Your task to perform on an android device: turn notification dots off Image 0: 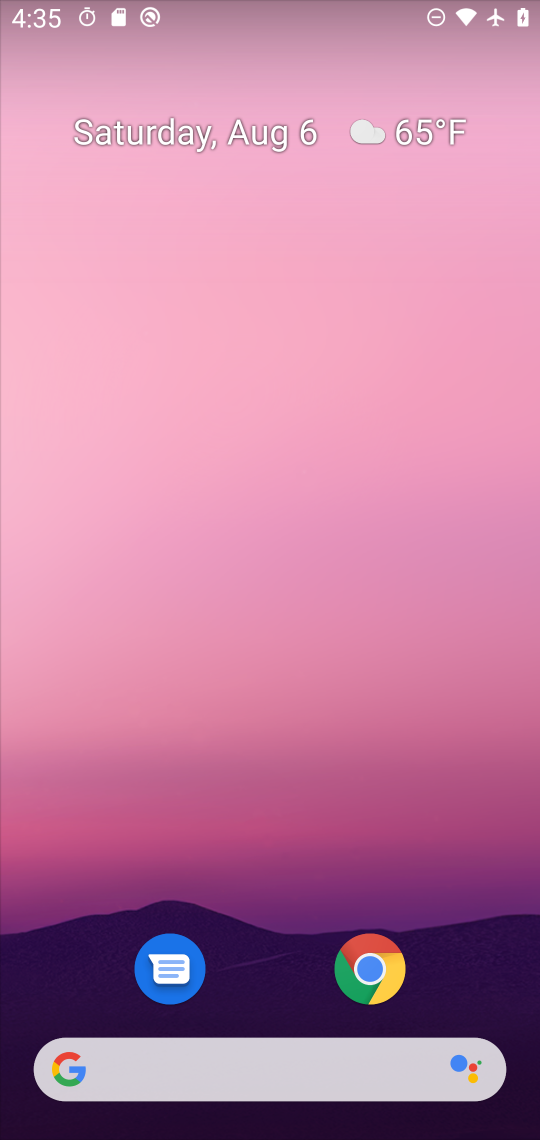
Step 0: press home button
Your task to perform on an android device: turn notification dots off Image 1: 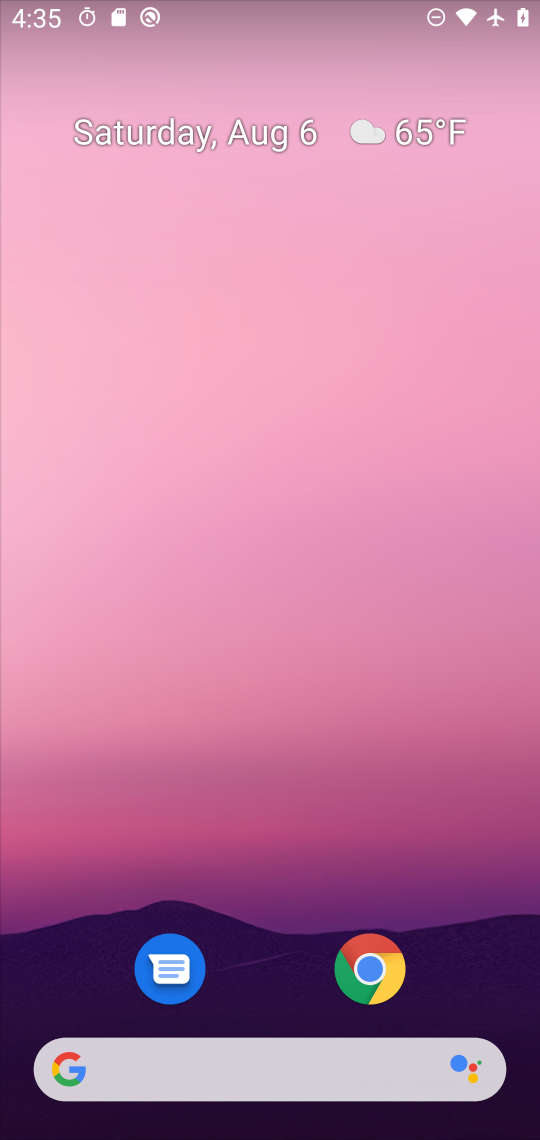
Step 1: drag from (298, 973) to (252, 234)
Your task to perform on an android device: turn notification dots off Image 2: 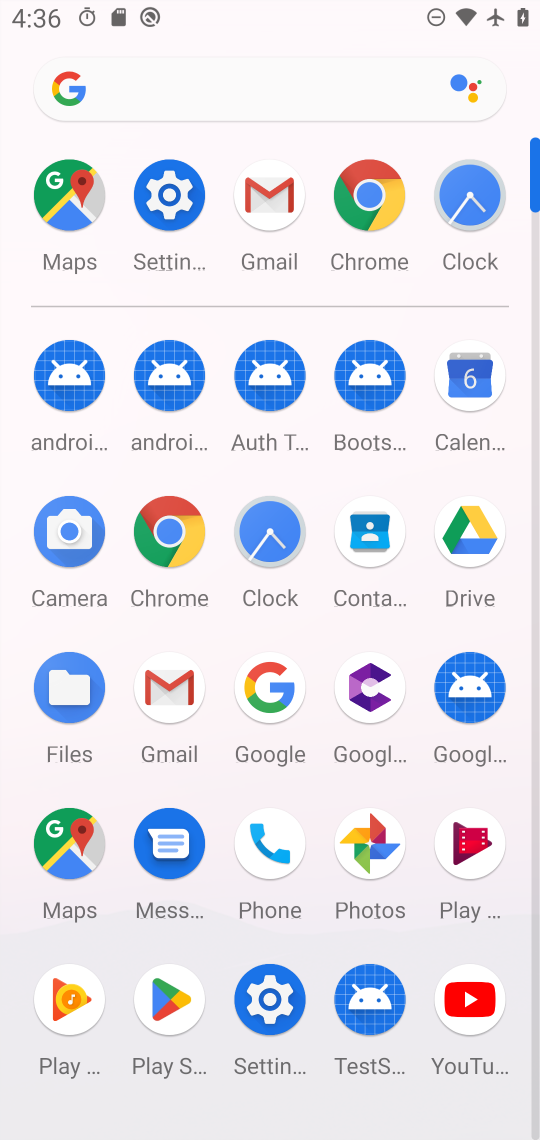
Step 2: press home button
Your task to perform on an android device: turn notification dots off Image 3: 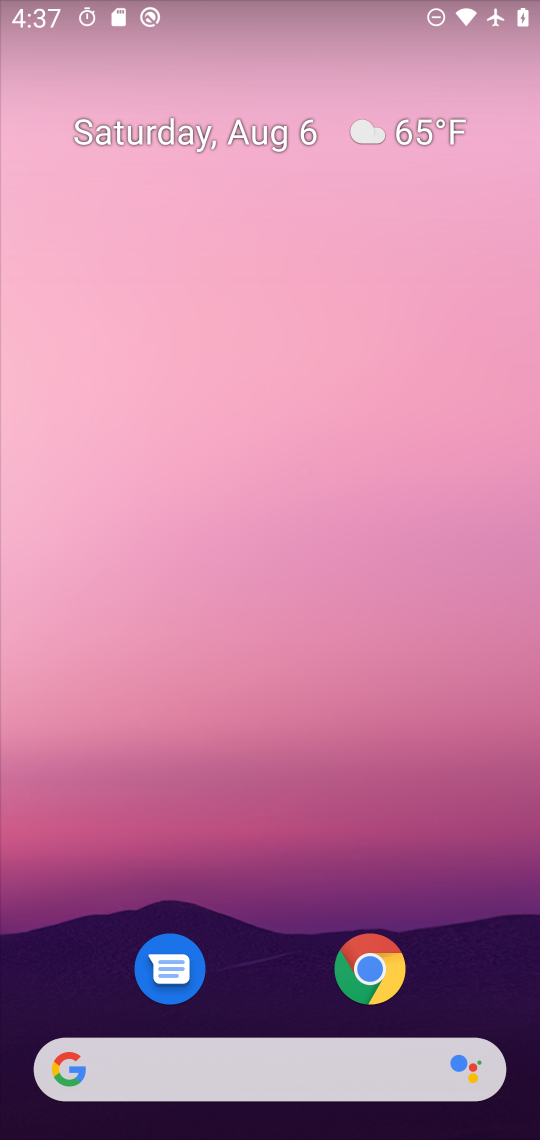
Step 3: drag from (257, 1001) to (201, 169)
Your task to perform on an android device: turn notification dots off Image 4: 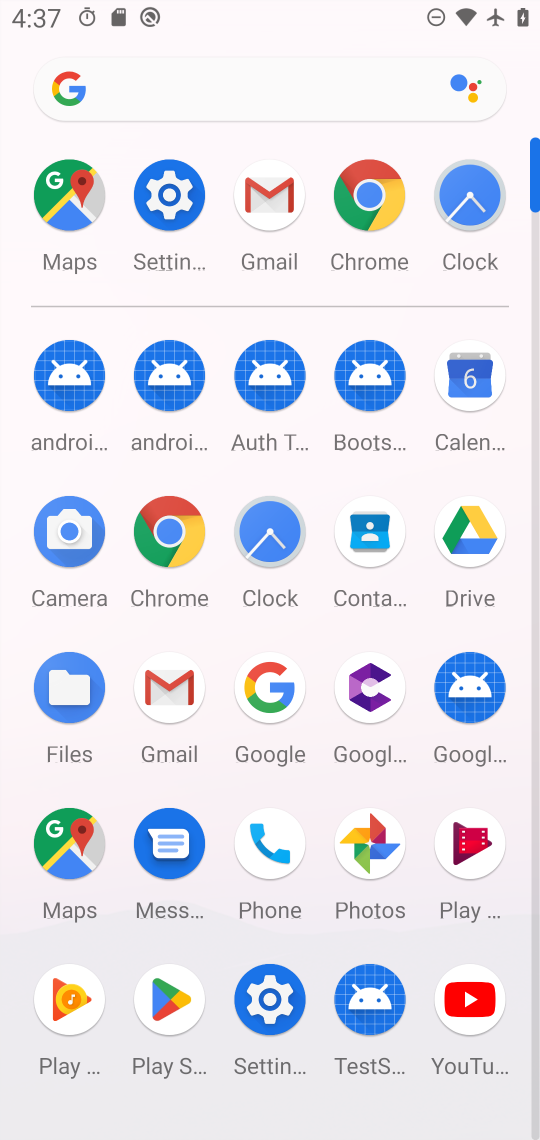
Step 4: click (177, 191)
Your task to perform on an android device: turn notification dots off Image 5: 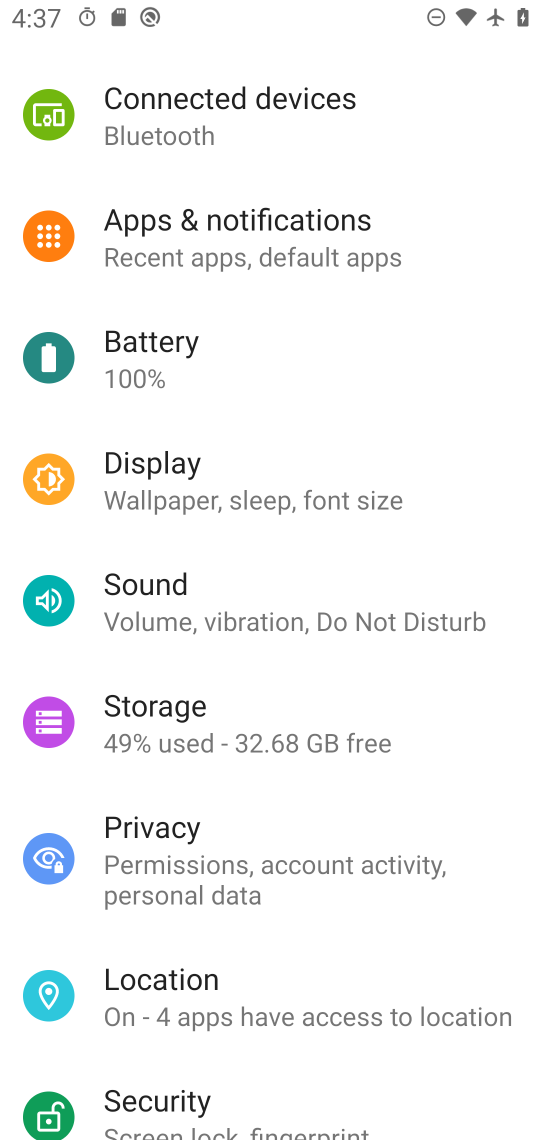
Step 5: click (218, 239)
Your task to perform on an android device: turn notification dots off Image 6: 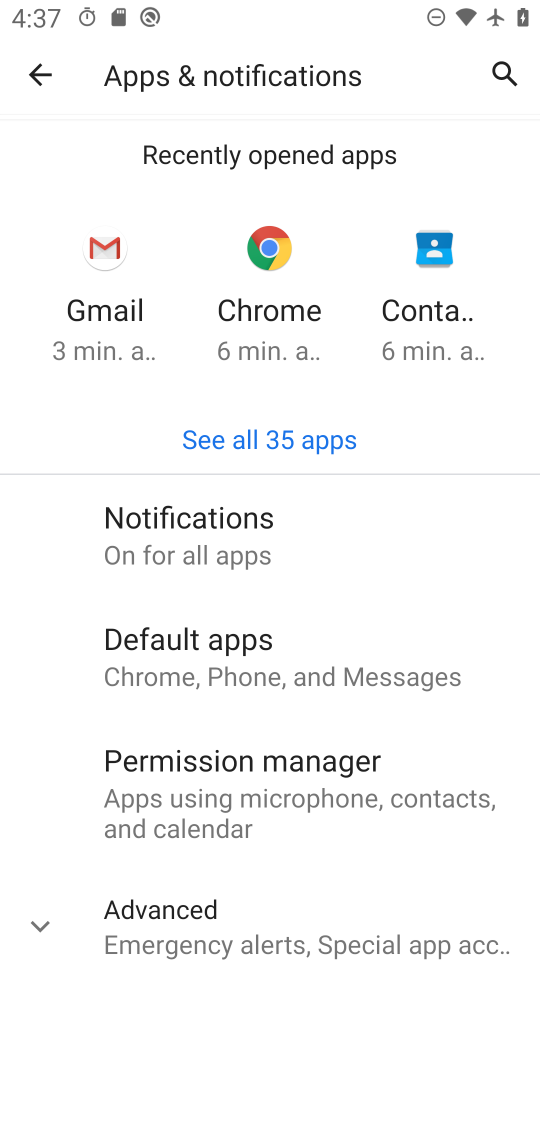
Step 6: click (176, 523)
Your task to perform on an android device: turn notification dots off Image 7: 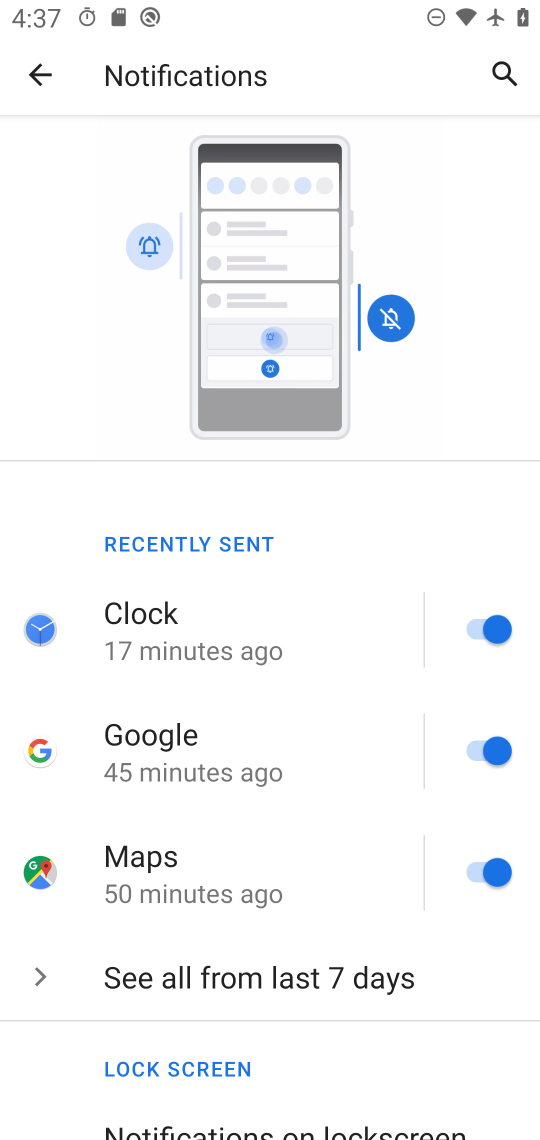
Step 7: drag from (350, 1032) to (265, 319)
Your task to perform on an android device: turn notification dots off Image 8: 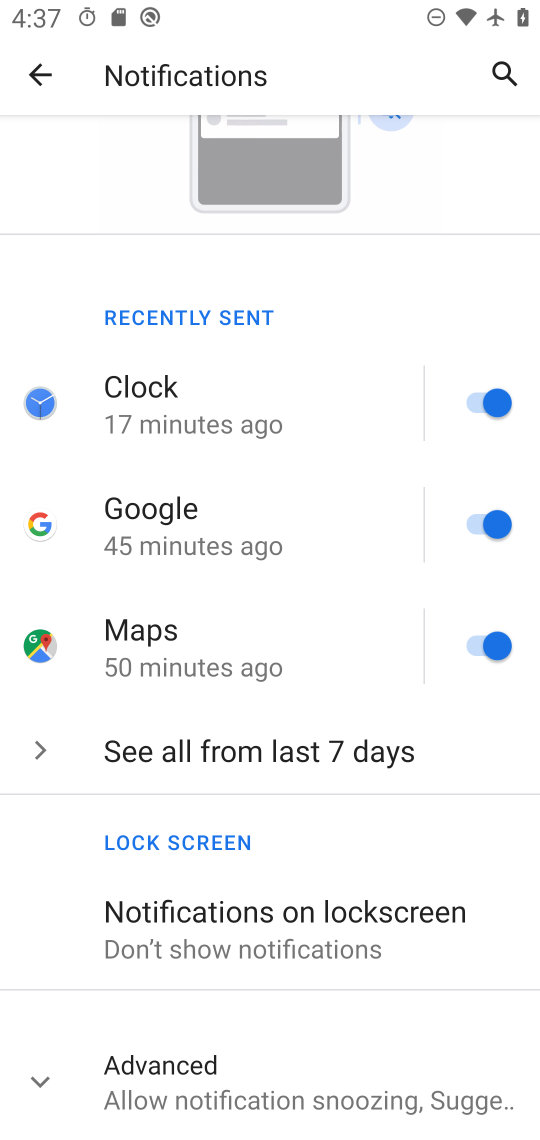
Step 8: click (174, 1080)
Your task to perform on an android device: turn notification dots off Image 9: 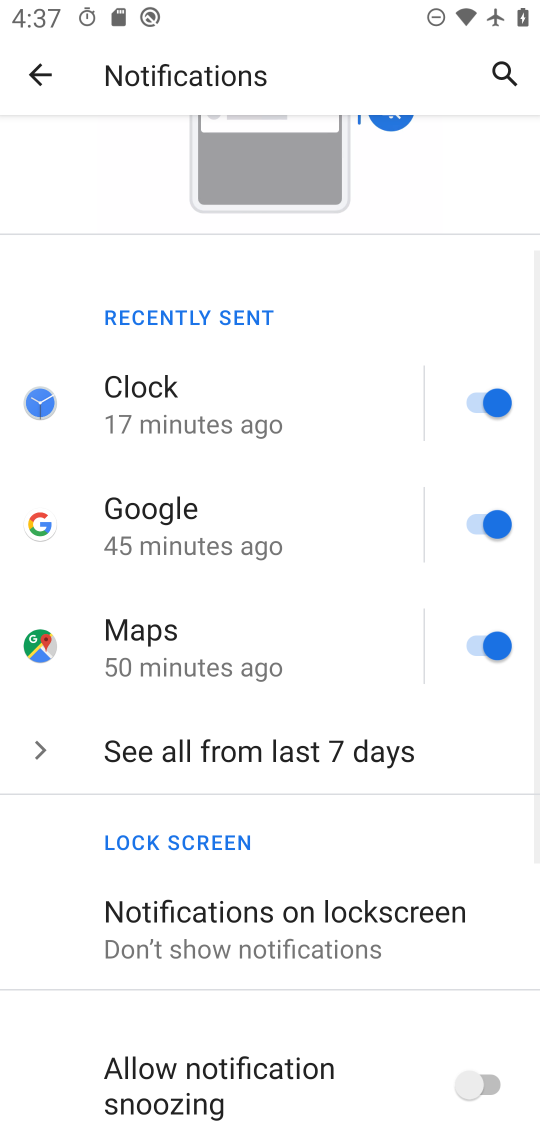
Step 9: task complete